Your task to perform on an android device: Go to CNN.com Image 0: 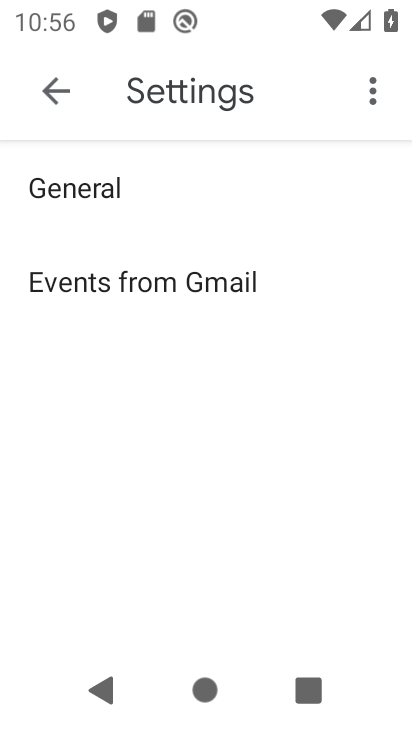
Step 0: press home button
Your task to perform on an android device: Go to CNN.com Image 1: 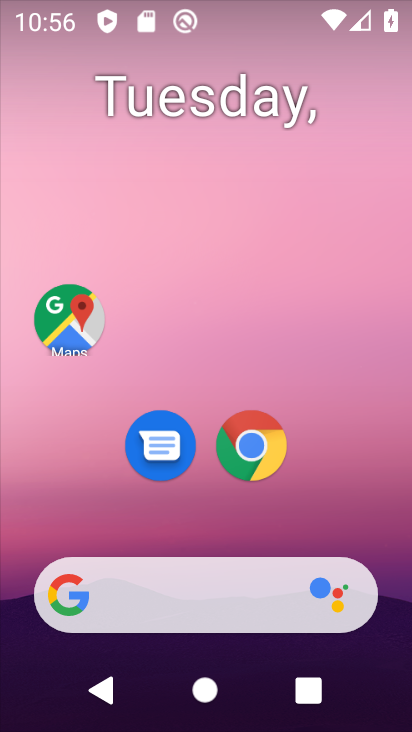
Step 1: drag from (368, 511) to (345, 145)
Your task to perform on an android device: Go to CNN.com Image 2: 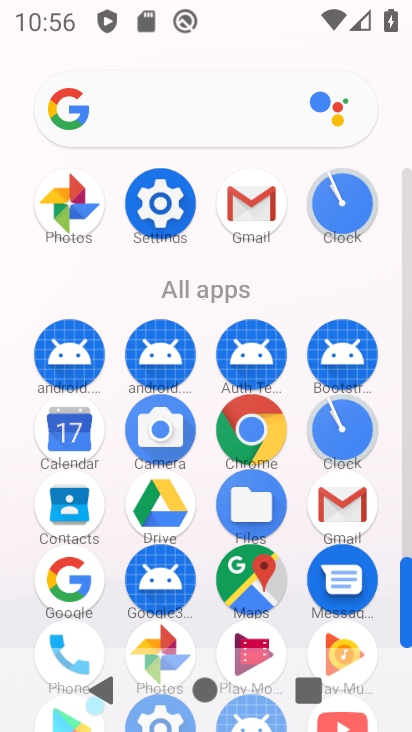
Step 2: click (248, 429)
Your task to perform on an android device: Go to CNN.com Image 3: 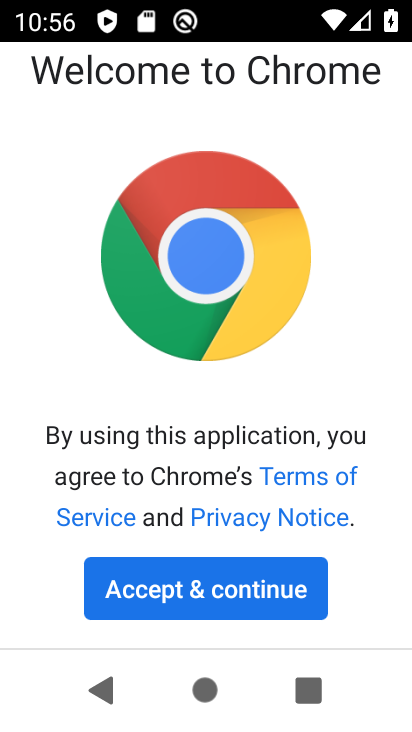
Step 3: click (265, 609)
Your task to perform on an android device: Go to CNN.com Image 4: 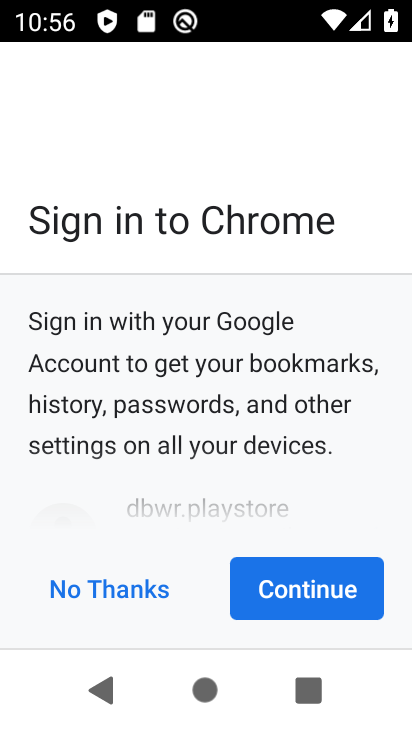
Step 4: click (282, 604)
Your task to perform on an android device: Go to CNN.com Image 5: 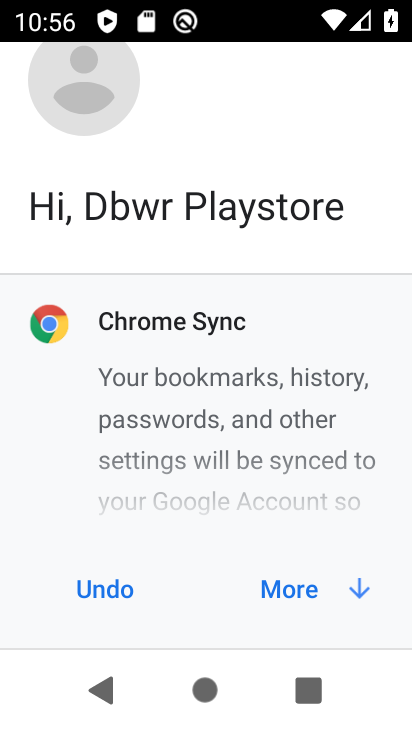
Step 5: click (282, 604)
Your task to perform on an android device: Go to CNN.com Image 6: 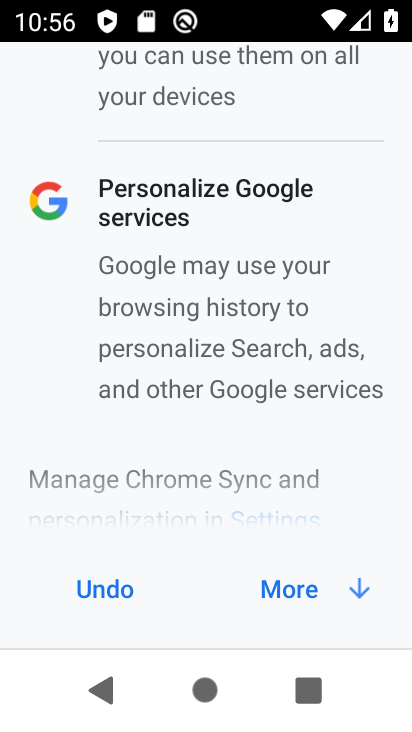
Step 6: click (282, 604)
Your task to perform on an android device: Go to CNN.com Image 7: 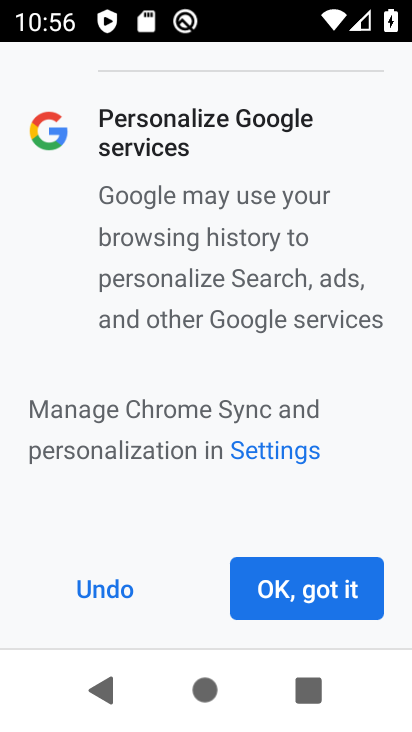
Step 7: click (282, 604)
Your task to perform on an android device: Go to CNN.com Image 8: 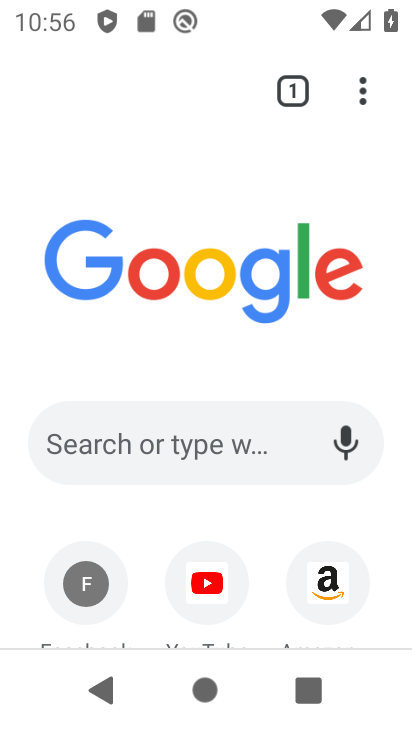
Step 8: drag from (284, 537) to (268, 280)
Your task to perform on an android device: Go to CNN.com Image 9: 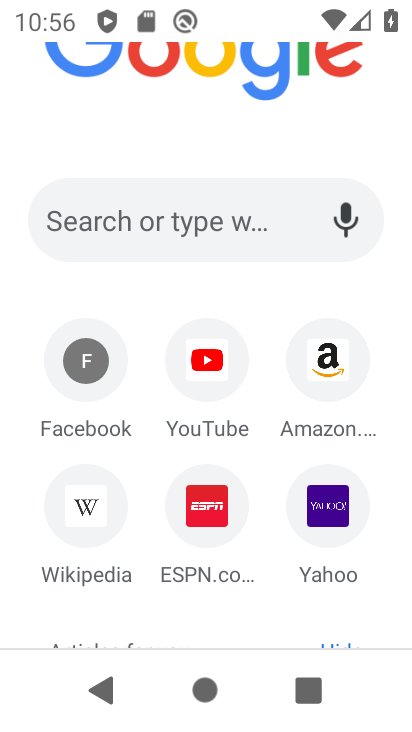
Step 9: click (232, 215)
Your task to perform on an android device: Go to CNN.com Image 10: 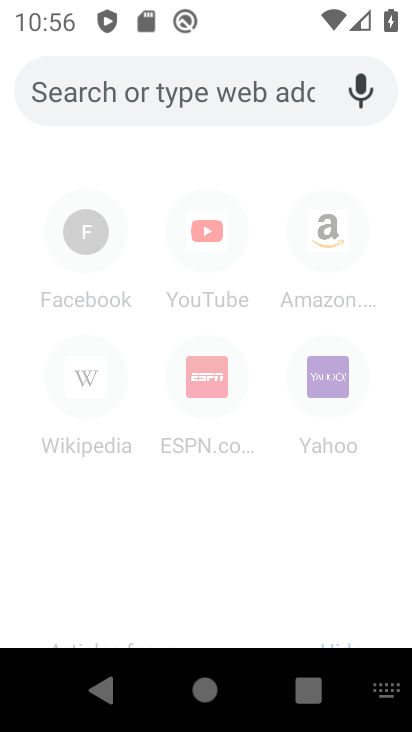
Step 10: type "cnn.com"
Your task to perform on an android device: Go to CNN.com Image 11: 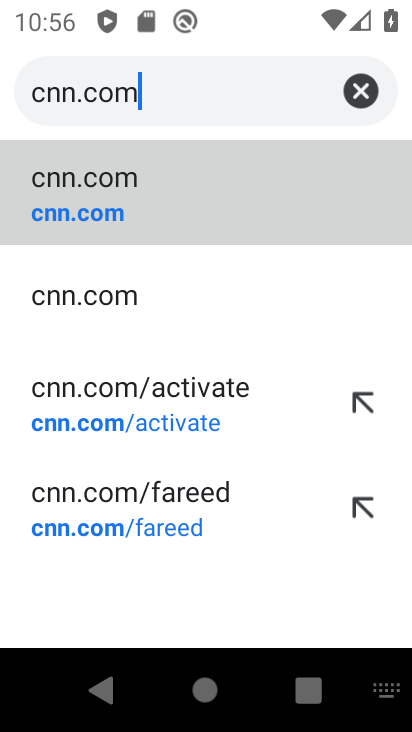
Step 11: click (123, 211)
Your task to perform on an android device: Go to CNN.com Image 12: 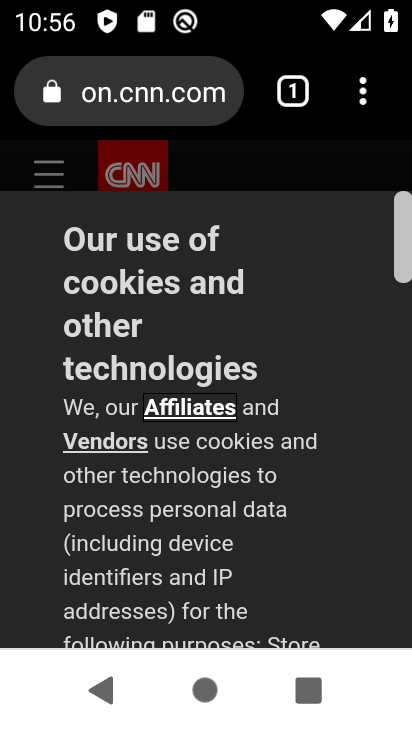
Step 12: task complete